Your task to perform on an android device: Open Google Maps Image 0: 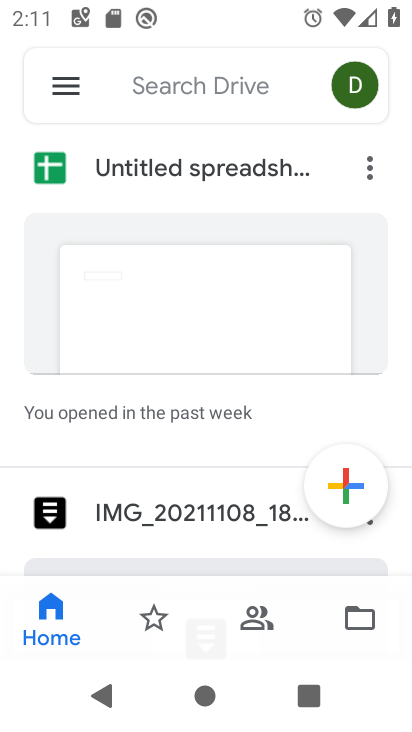
Step 0: press home button
Your task to perform on an android device: Open Google Maps Image 1: 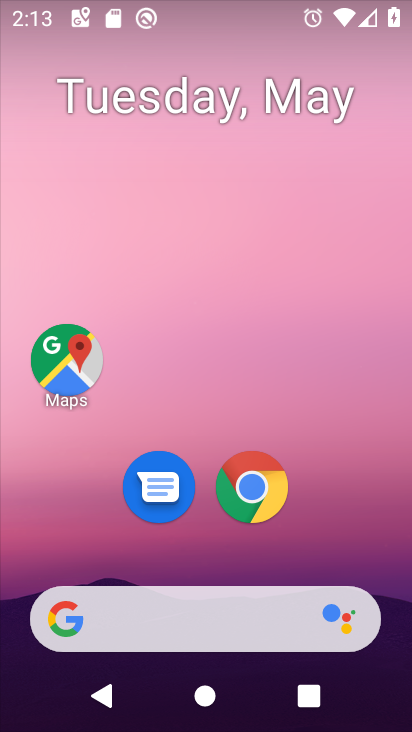
Step 1: click (80, 343)
Your task to perform on an android device: Open Google Maps Image 2: 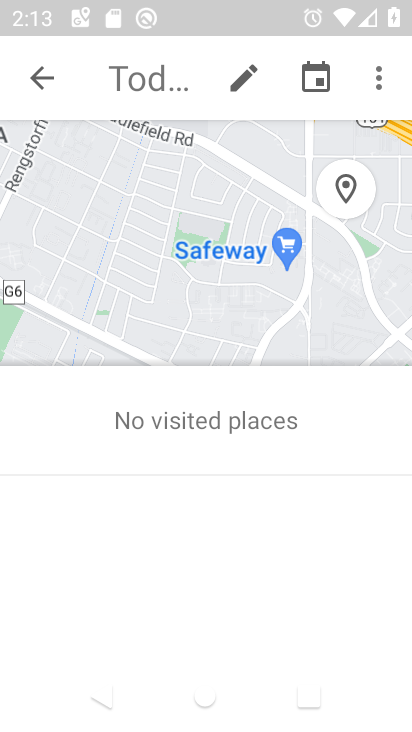
Step 2: click (31, 71)
Your task to perform on an android device: Open Google Maps Image 3: 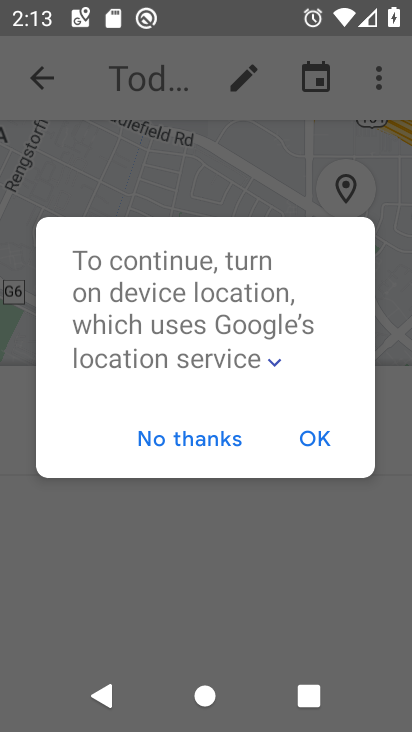
Step 3: click (307, 442)
Your task to perform on an android device: Open Google Maps Image 4: 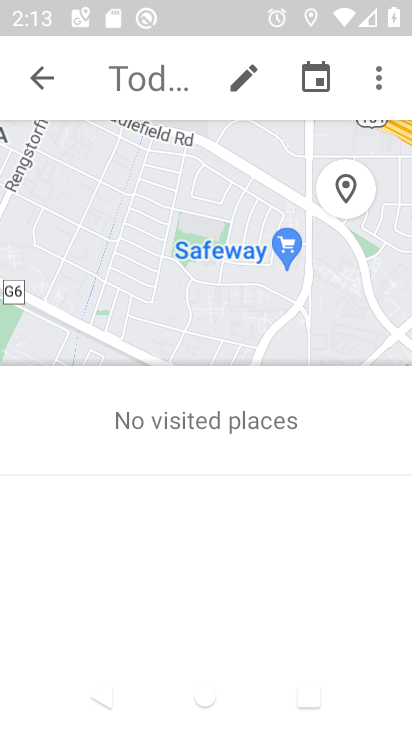
Step 4: task complete